Your task to perform on an android device: Set the phone to "Do not disturb". Image 0: 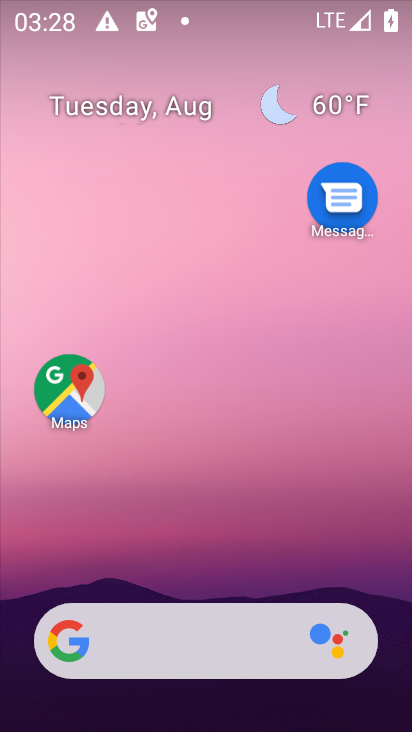
Step 0: drag from (169, 591) to (260, 112)
Your task to perform on an android device: Set the phone to "Do not disturb". Image 1: 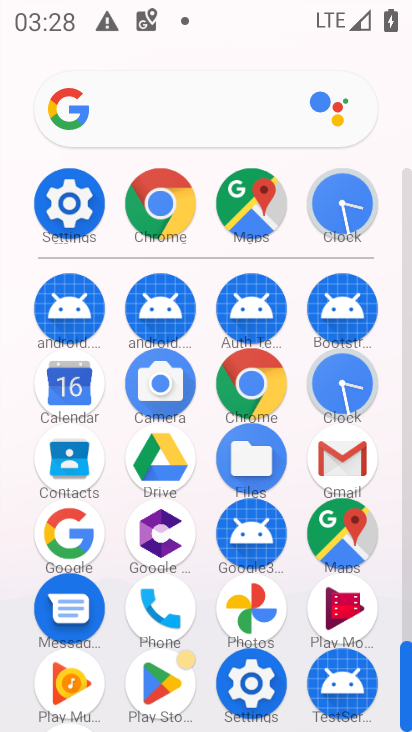
Step 1: click (72, 221)
Your task to perform on an android device: Set the phone to "Do not disturb". Image 2: 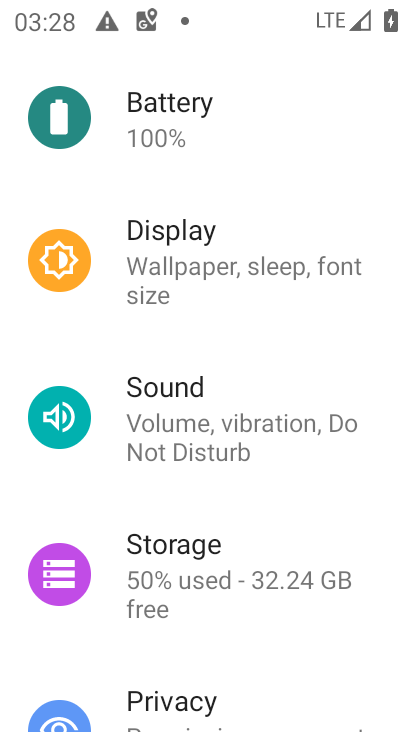
Step 2: click (162, 427)
Your task to perform on an android device: Set the phone to "Do not disturb". Image 3: 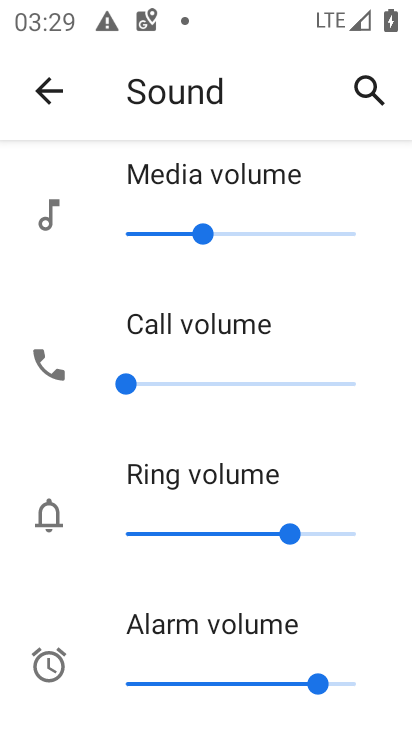
Step 3: drag from (299, 696) to (213, 147)
Your task to perform on an android device: Set the phone to "Do not disturb". Image 4: 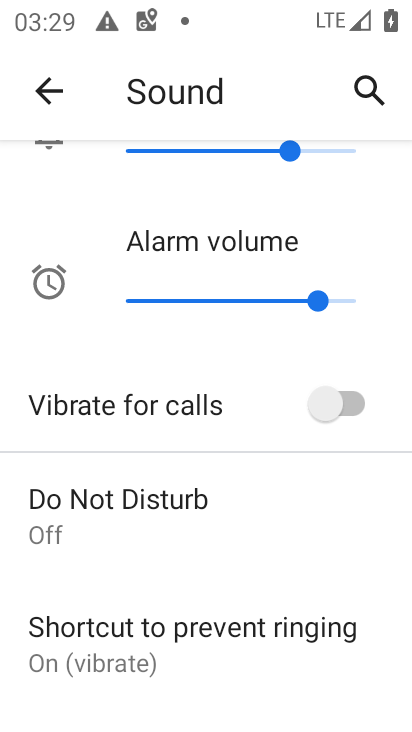
Step 4: click (159, 558)
Your task to perform on an android device: Set the phone to "Do not disturb". Image 5: 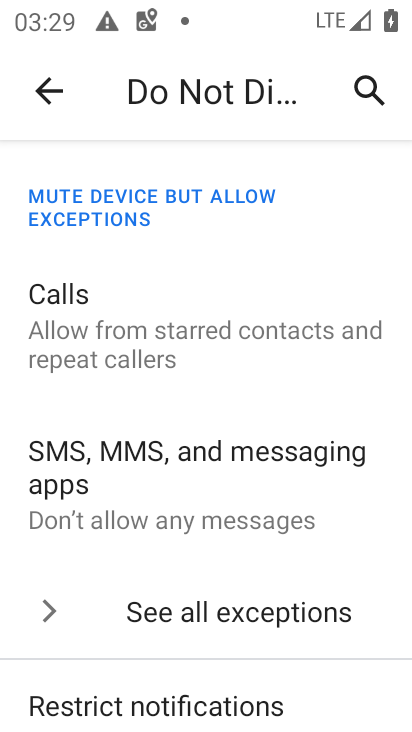
Step 5: drag from (219, 565) to (204, 229)
Your task to perform on an android device: Set the phone to "Do not disturb". Image 6: 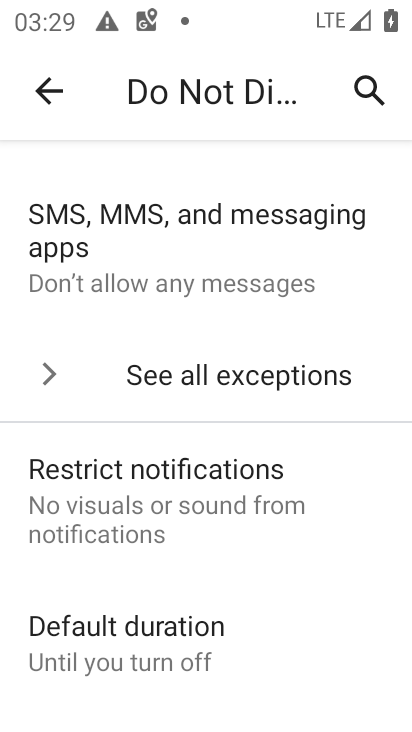
Step 6: click (215, 640)
Your task to perform on an android device: Set the phone to "Do not disturb". Image 7: 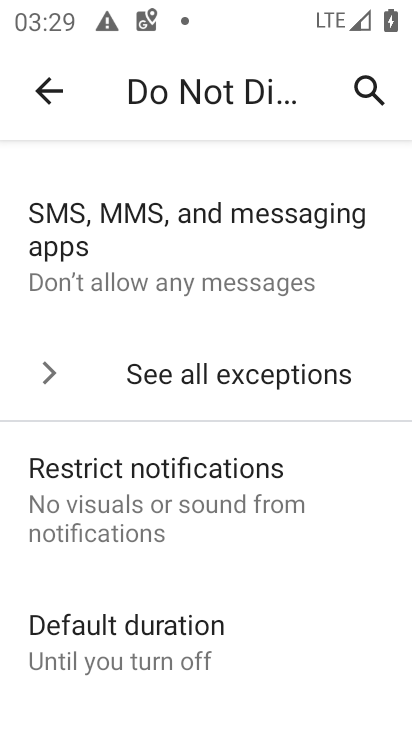
Step 7: click (191, 626)
Your task to perform on an android device: Set the phone to "Do not disturb". Image 8: 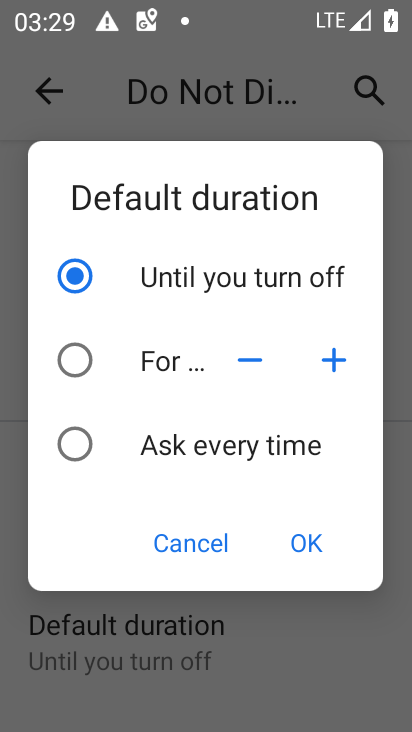
Step 8: click (283, 551)
Your task to perform on an android device: Set the phone to "Do not disturb". Image 9: 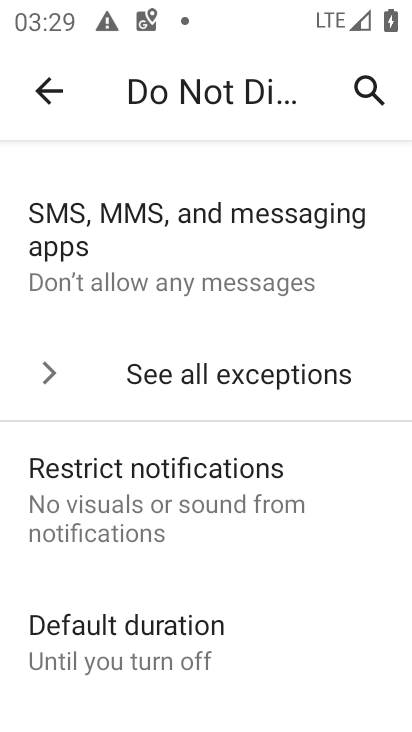
Step 9: task complete